Your task to perform on an android device: change the clock display to analog Image 0: 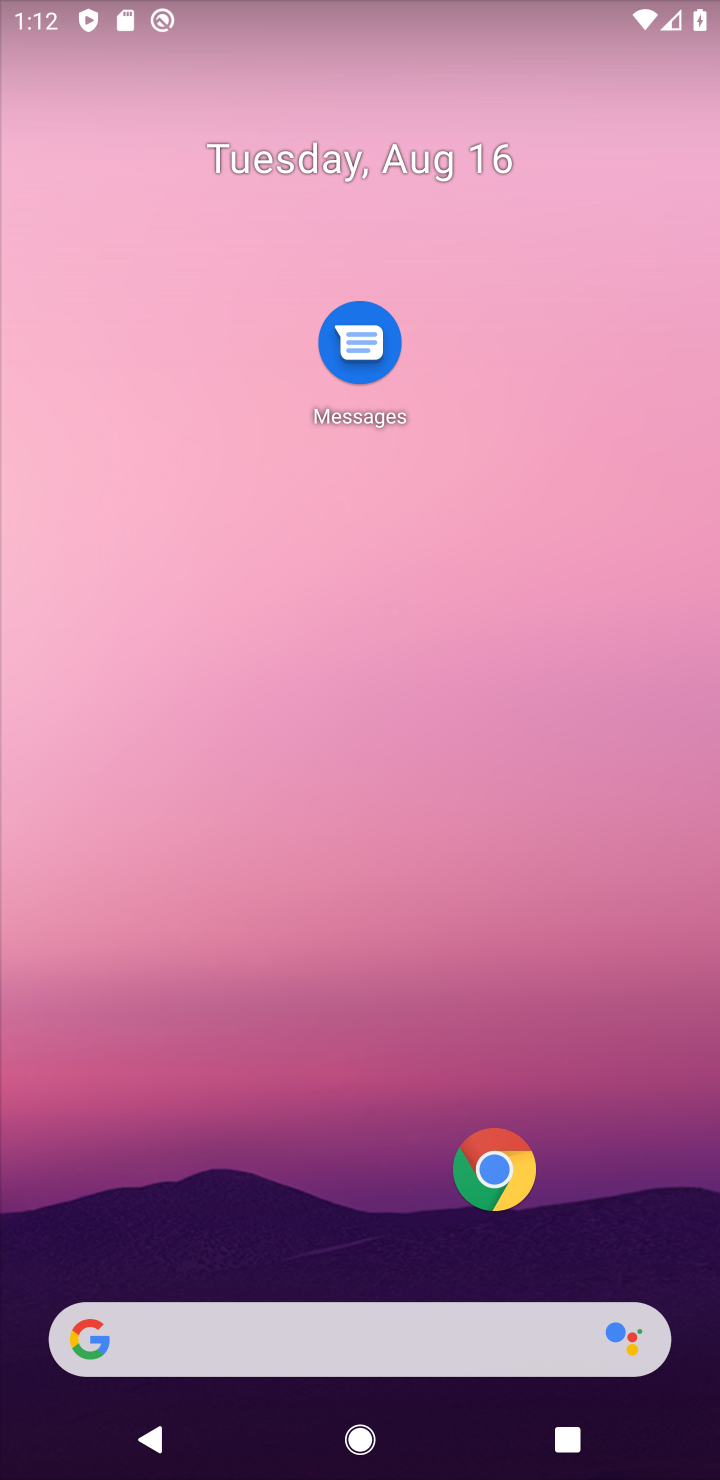
Step 0: drag from (52, 1437) to (468, 262)
Your task to perform on an android device: change the clock display to analog Image 1: 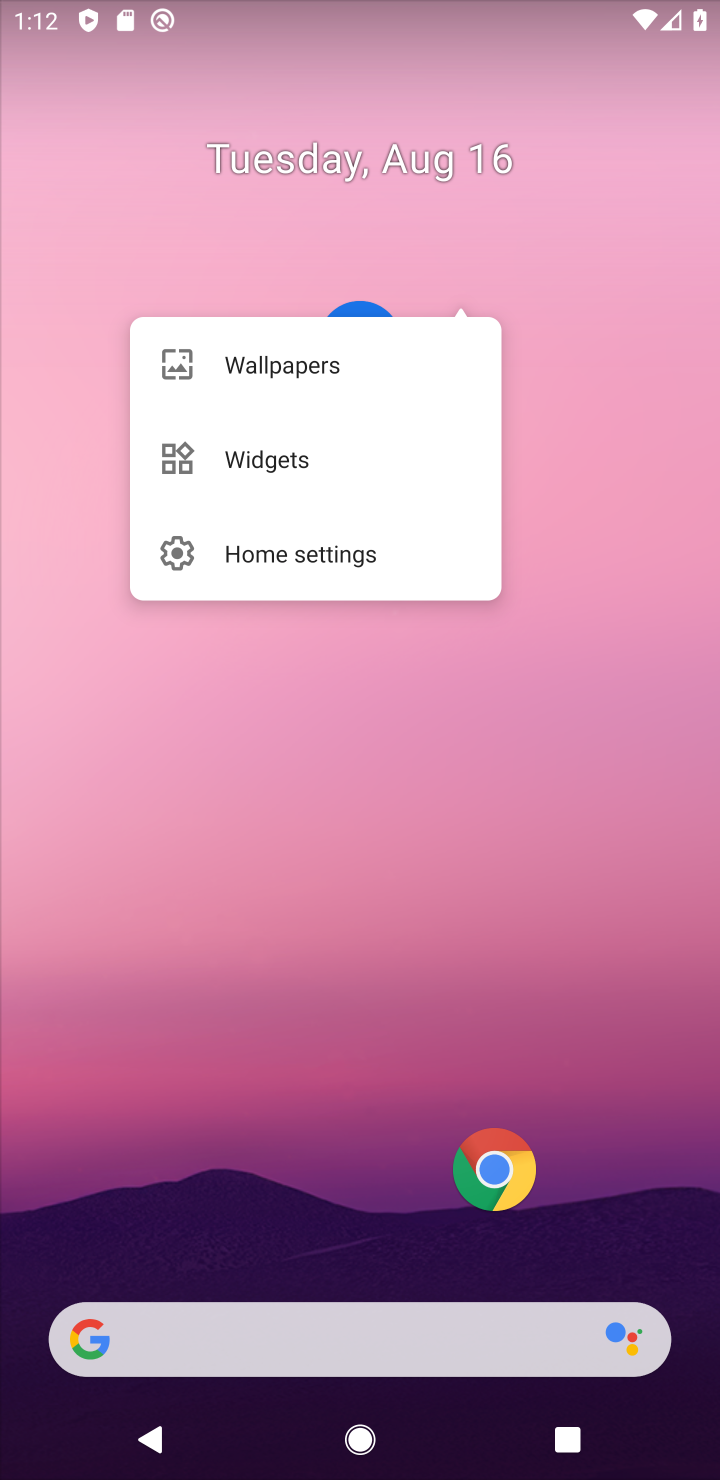
Step 1: drag from (90, 1417) to (449, 420)
Your task to perform on an android device: change the clock display to analog Image 2: 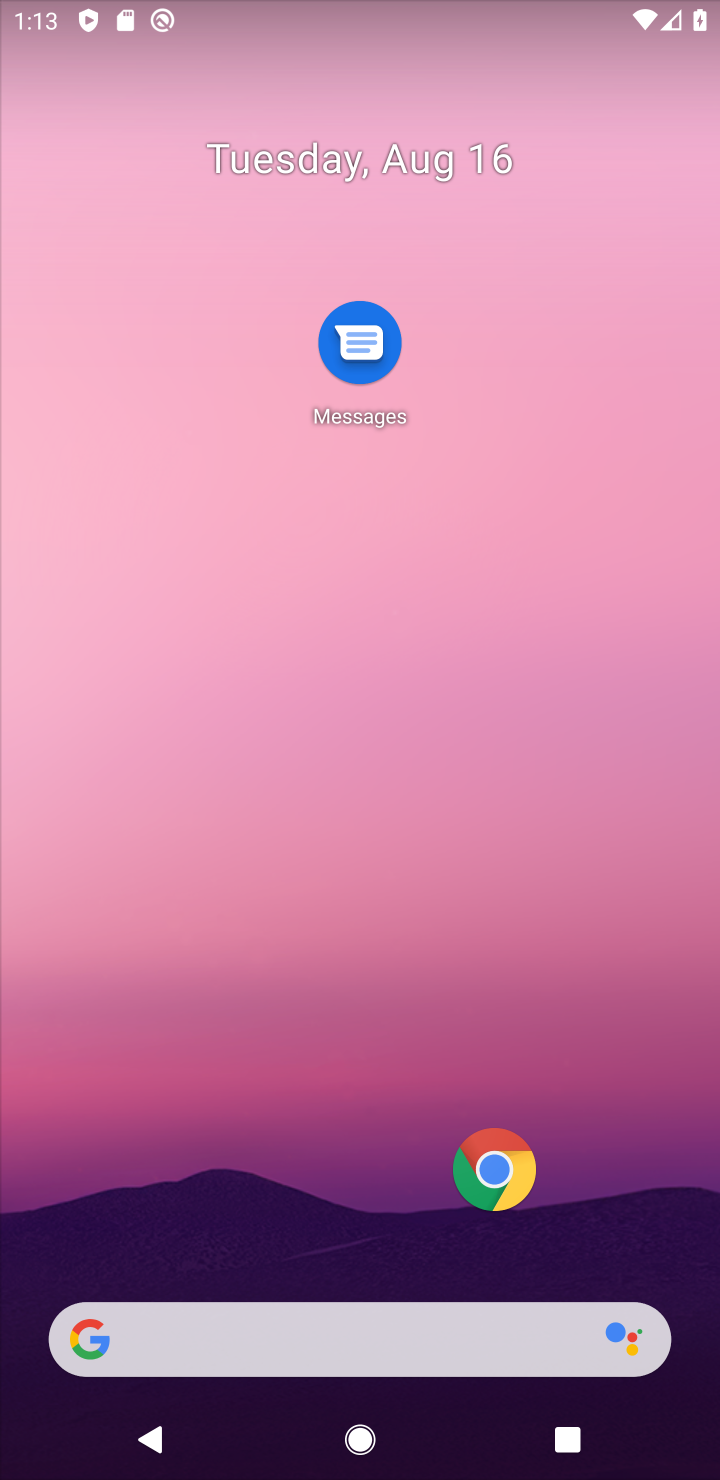
Step 2: drag from (74, 1399) to (347, 434)
Your task to perform on an android device: change the clock display to analog Image 3: 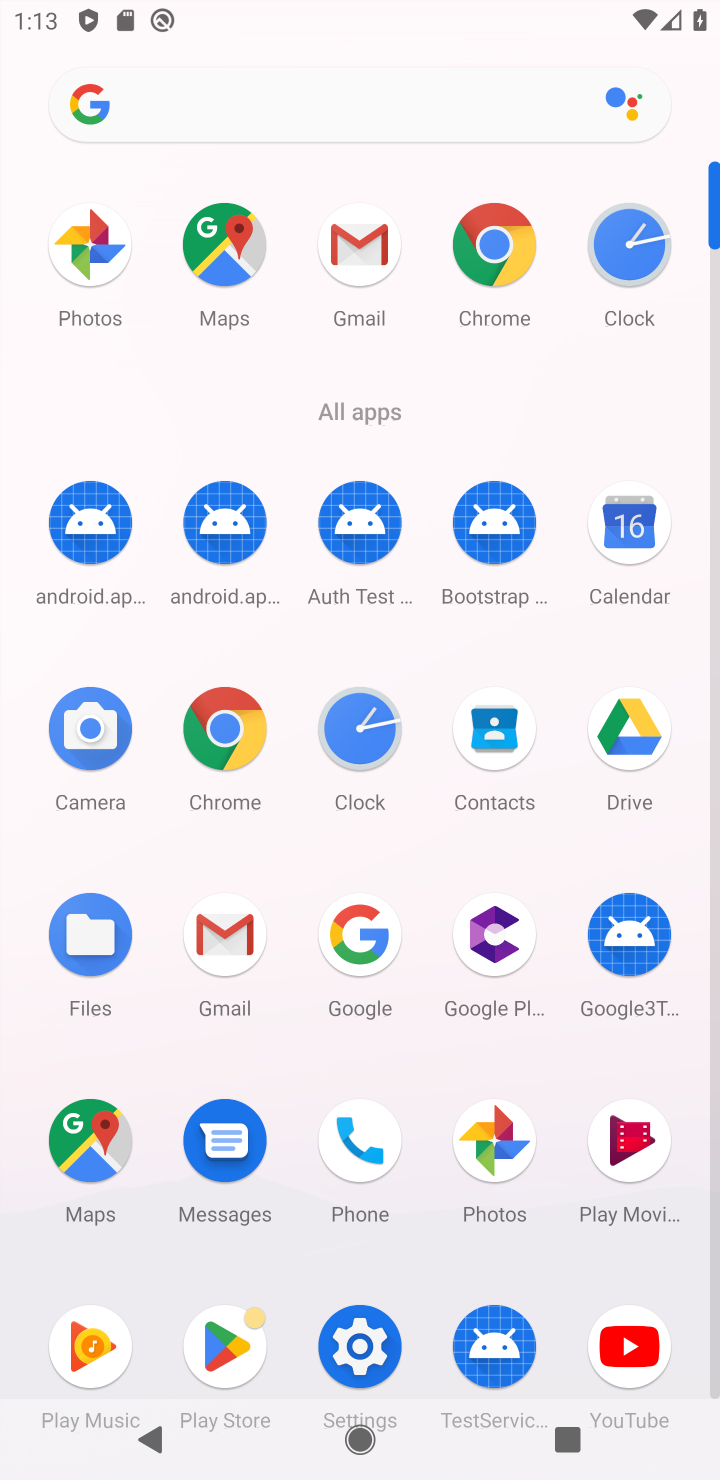
Step 3: click (626, 244)
Your task to perform on an android device: change the clock display to analog Image 4: 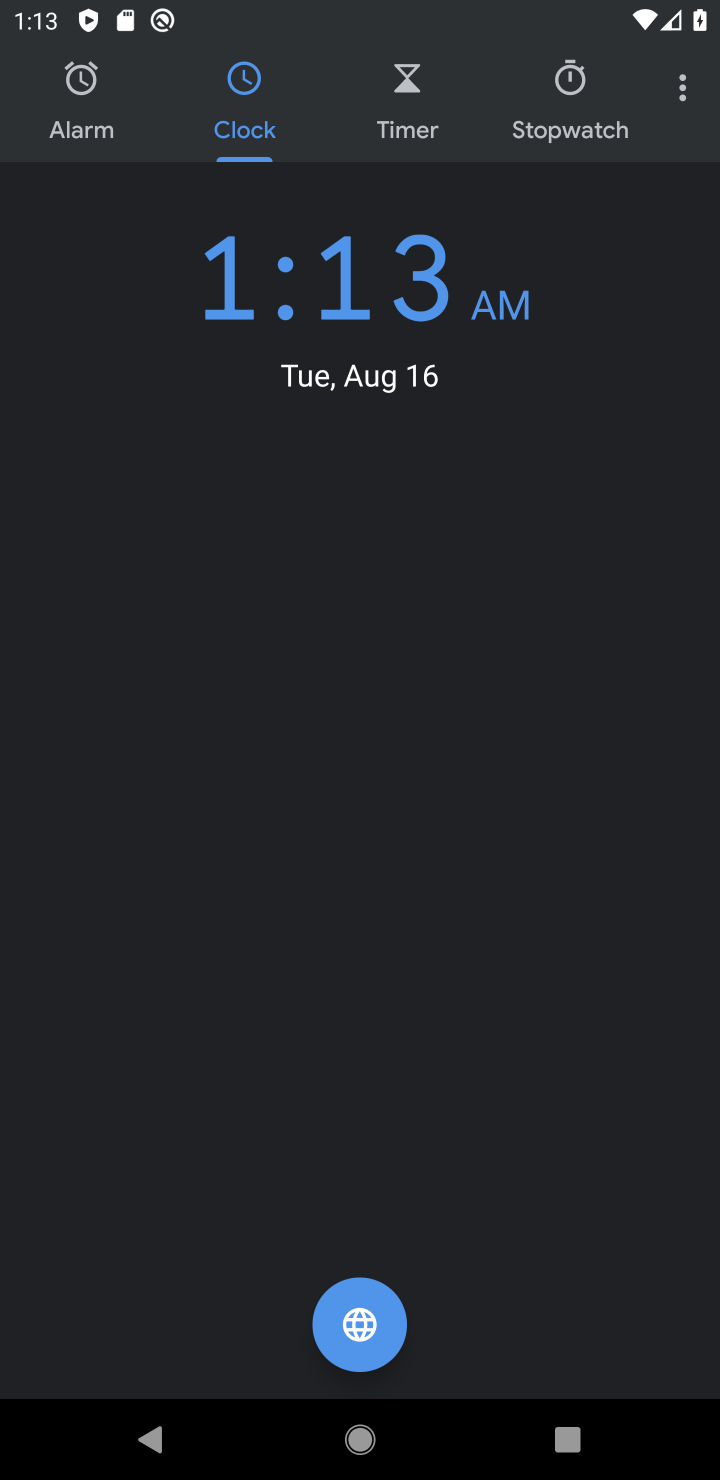
Step 4: click (684, 96)
Your task to perform on an android device: change the clock display to analog Image 5: 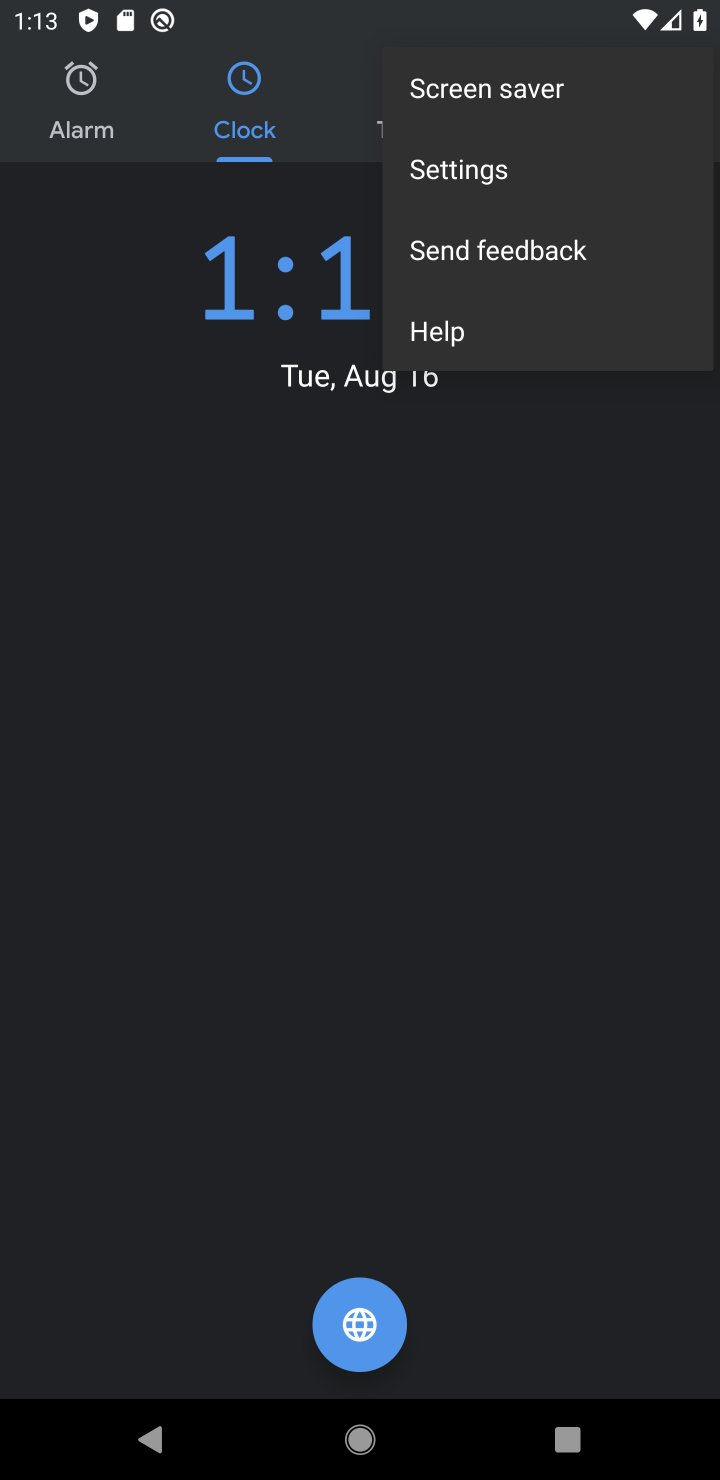
Step 5: click (454, 171)
Your task to perform on an android device: change the clock display to analog Image 6: 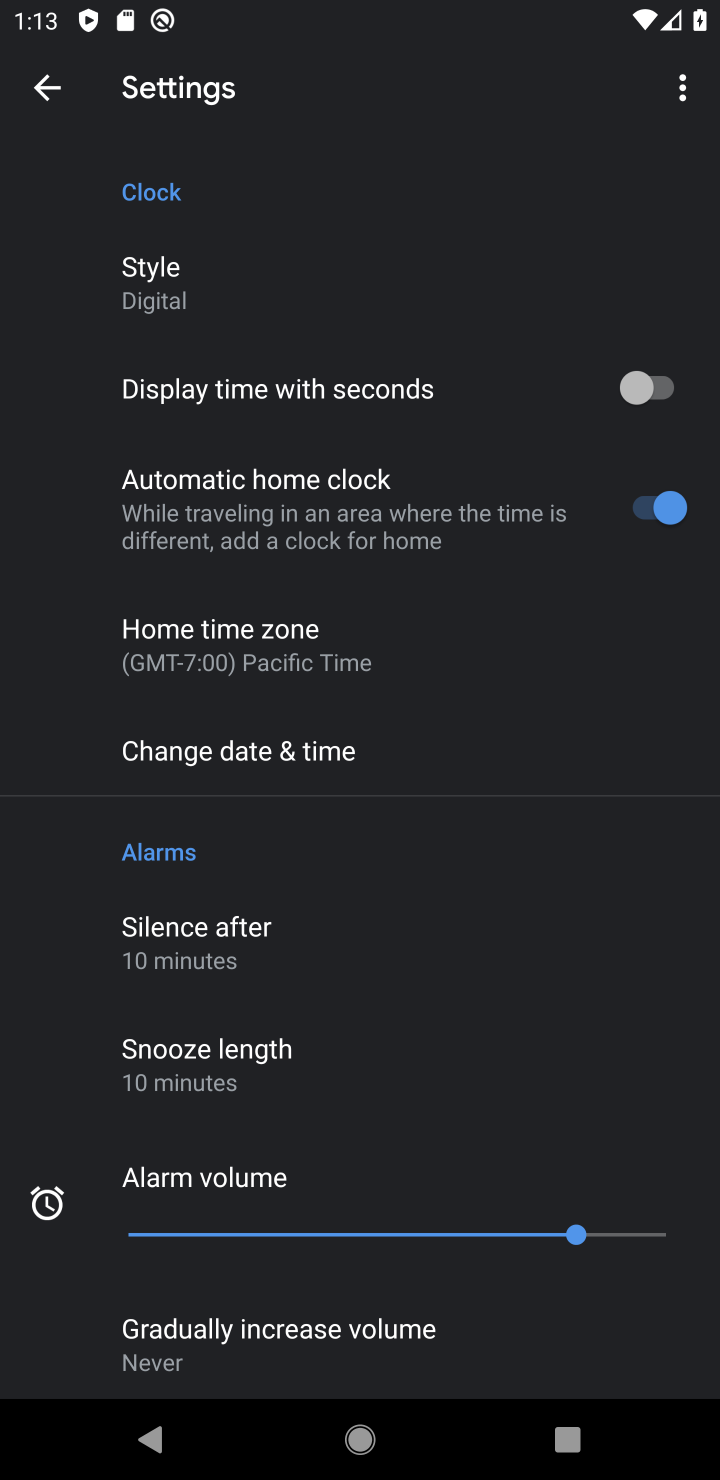
Step 6: click (163, 290)
Your task to perform on an android device: change the clock display to analog Image 7: 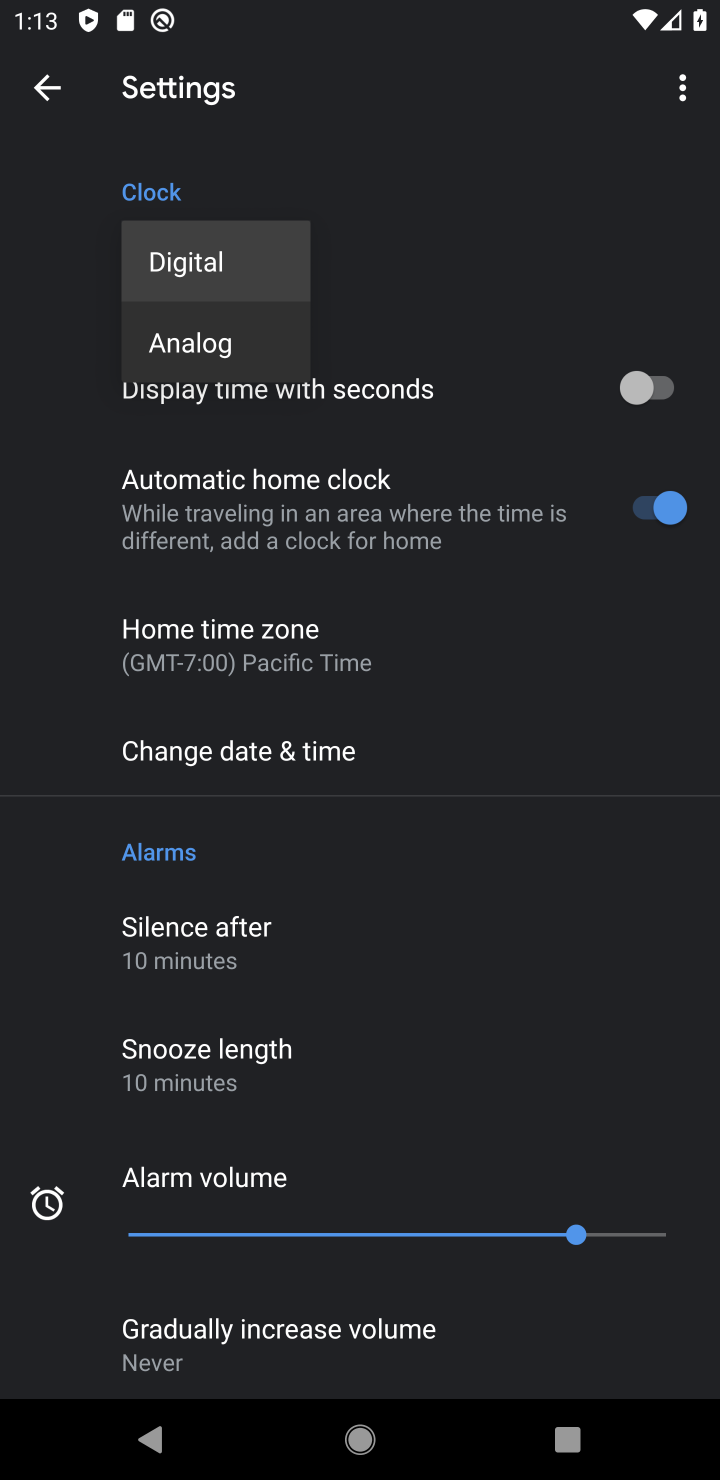
Step 7: click (174, 359)
Your task to perform on an android device: change the clock display to analog Image 8: 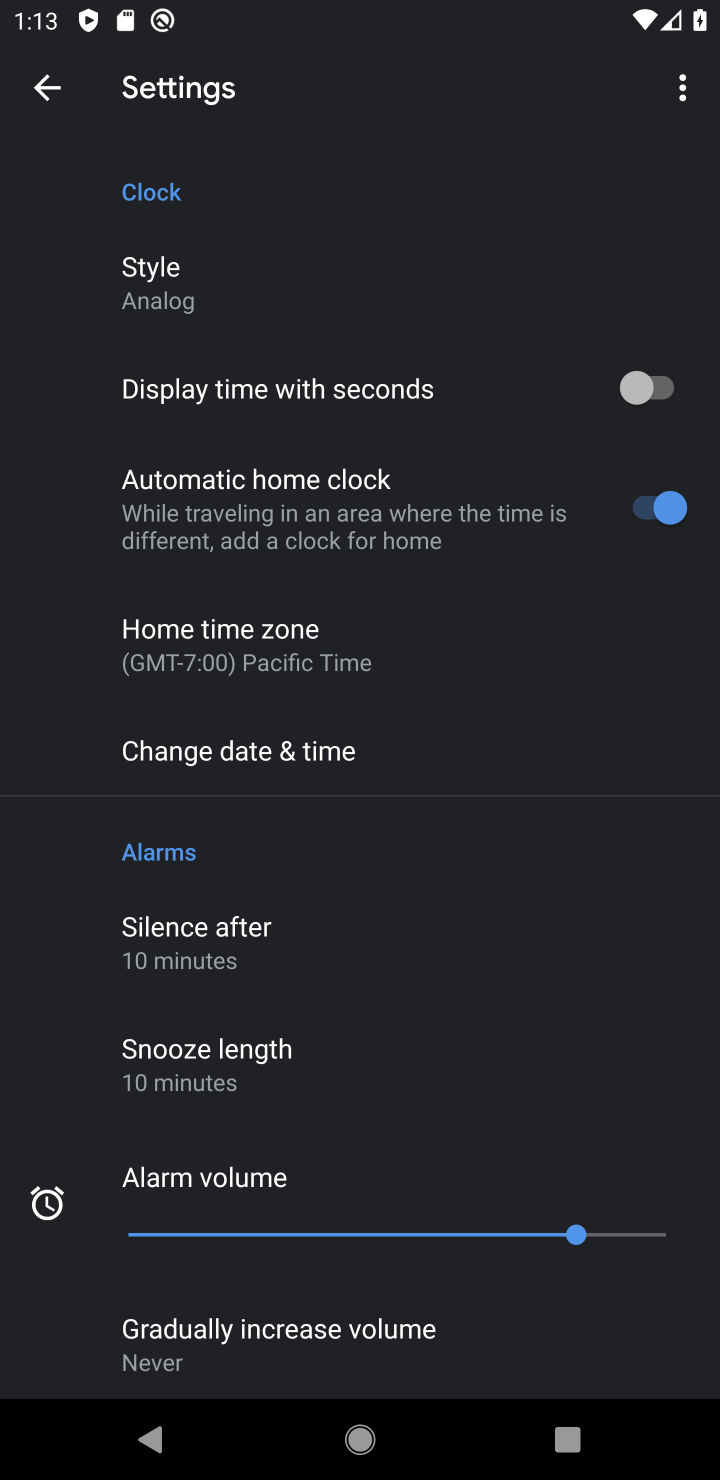
Step 8: task complete